Your task to perform on an android device: empty trash in the gmail app Image 0: 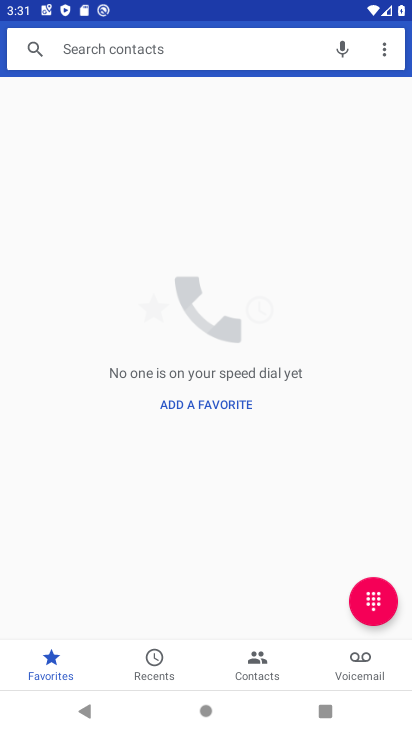
Step 0: press home button
Your task to perform on an android device: empty trash in the gmail app Image 1: 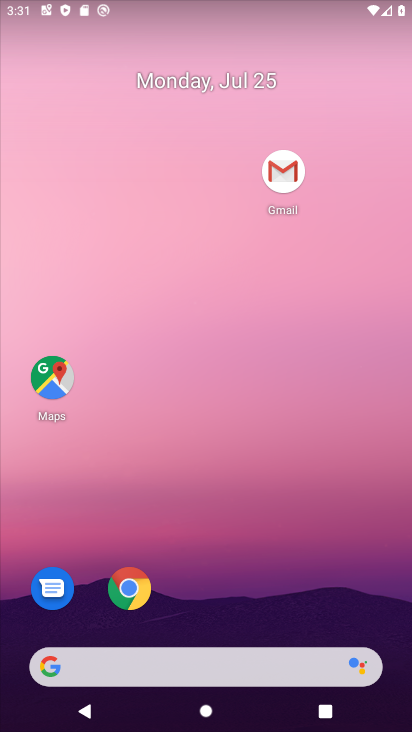
Step 1: drag from (325, 624) to (133, 163)
Your task to perform on an android device: empty trash in the gmail app Image 2: 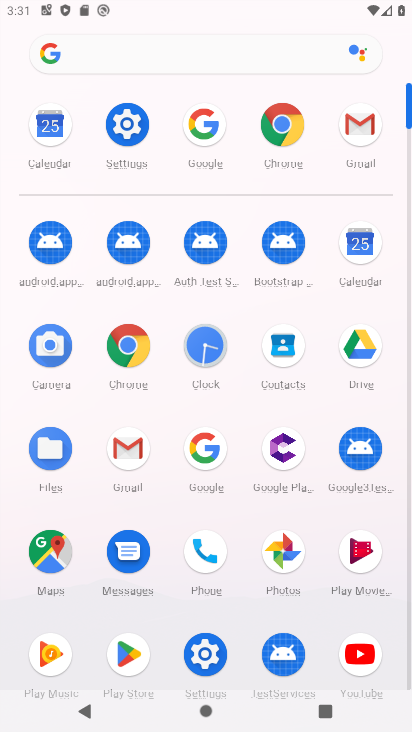
Step 2: click (118, 447)
Your task to perform on an android device: empty trash in the gmail app Image 3: 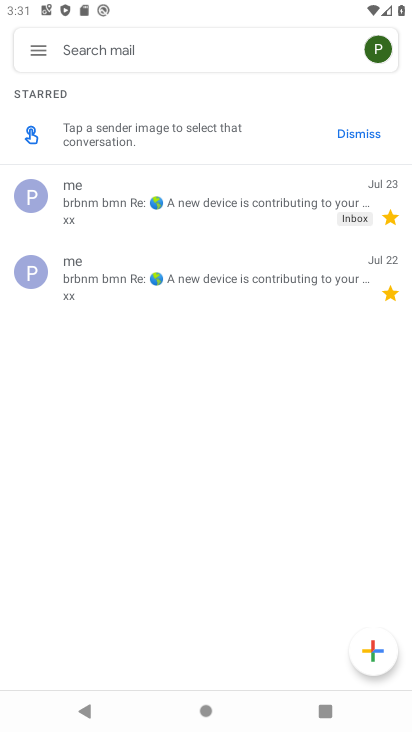
Step 3: click (33, 44)
Your task to perform on an android device: empty trash in the gmail app Image 4: 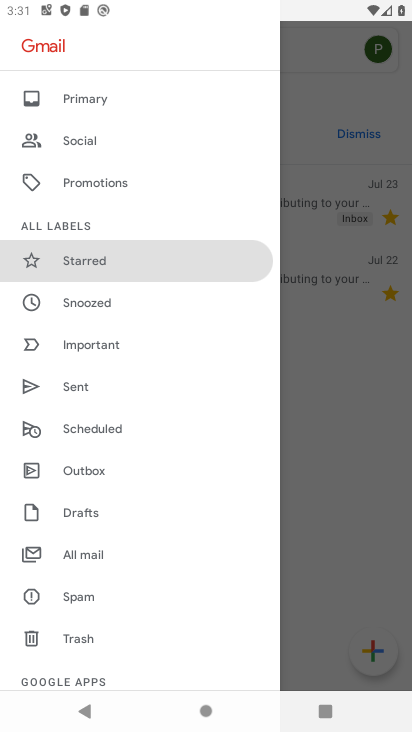
Step 4: click (72, 638)
Your task to perform on an android device: empty trash in the gmail app Image 5: 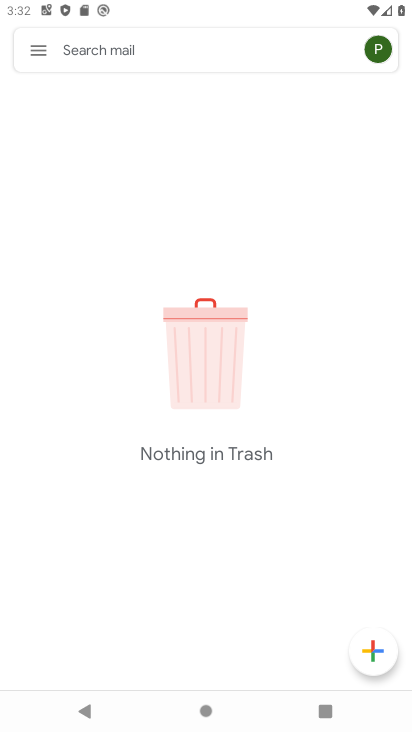
Step 5: task complete